Your task to perform on an android device: install app "Google Sheets" Image 0: 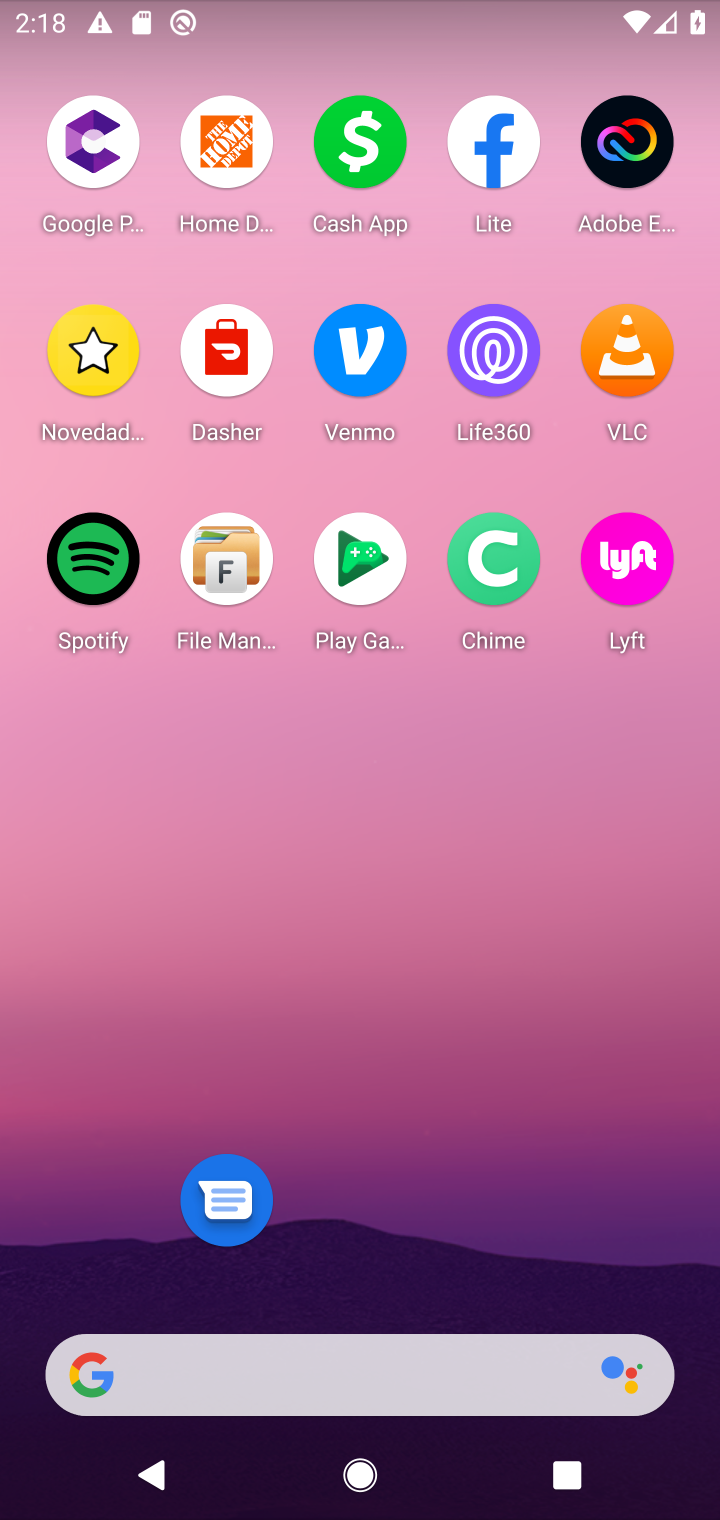
Step 0: drag from (520, 1068) to (490, 35)
Your task to perform on an android device: install app "Google Sheets" Image 1: 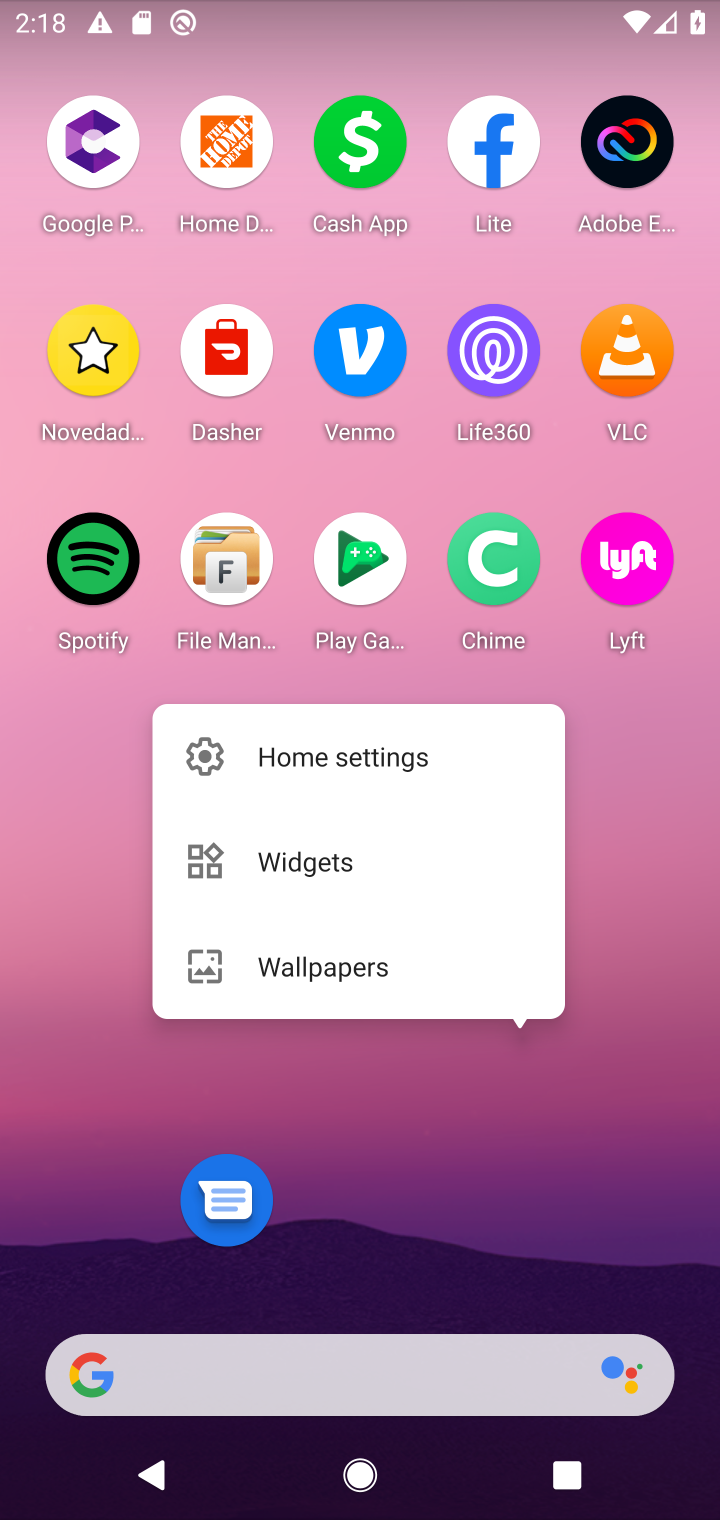
Step 1: click (655, 917)
Your task to perform on an android device: install app "Google Sheets" Image 2: 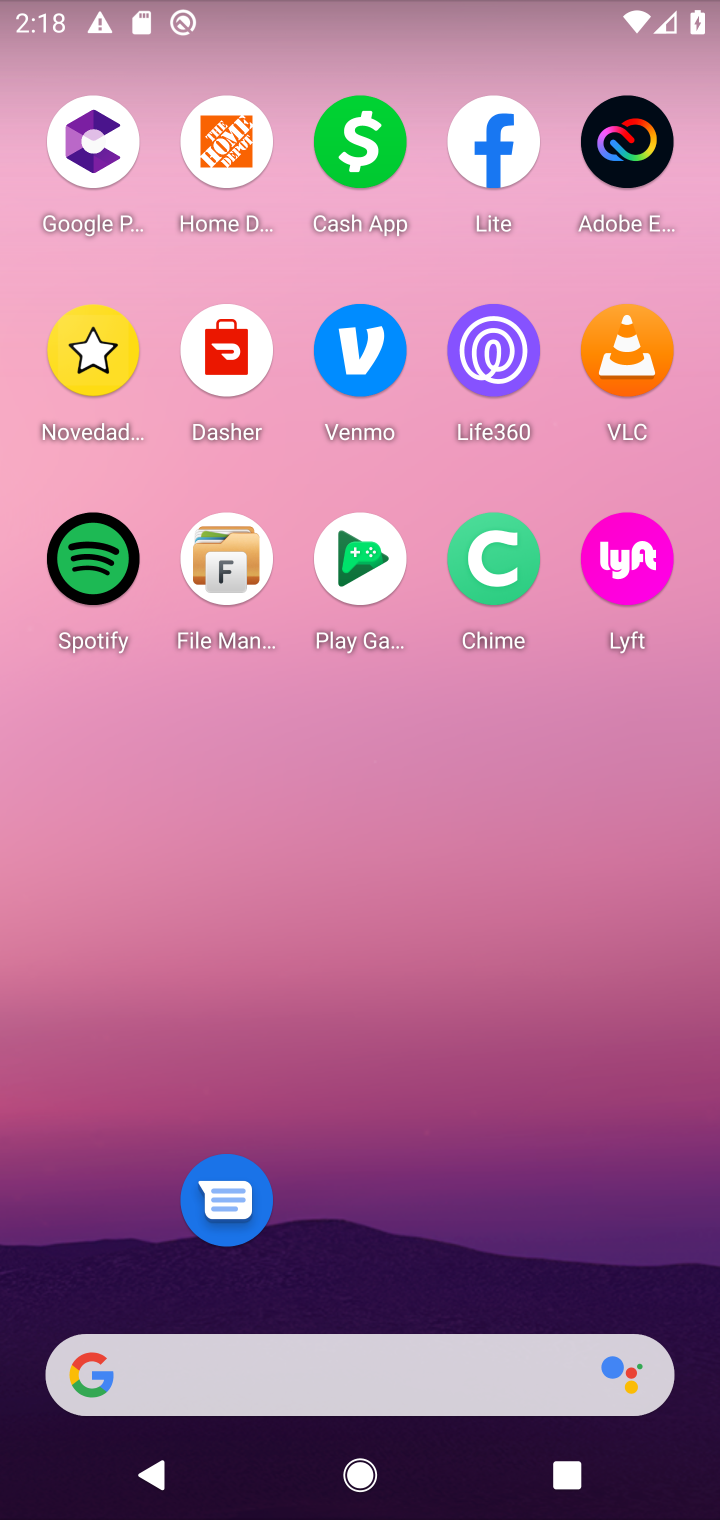
Step 2: drag from (502, 1215) to (398, 185)
Your task to perform on an android device: install app "Google Sheets" Image 3: 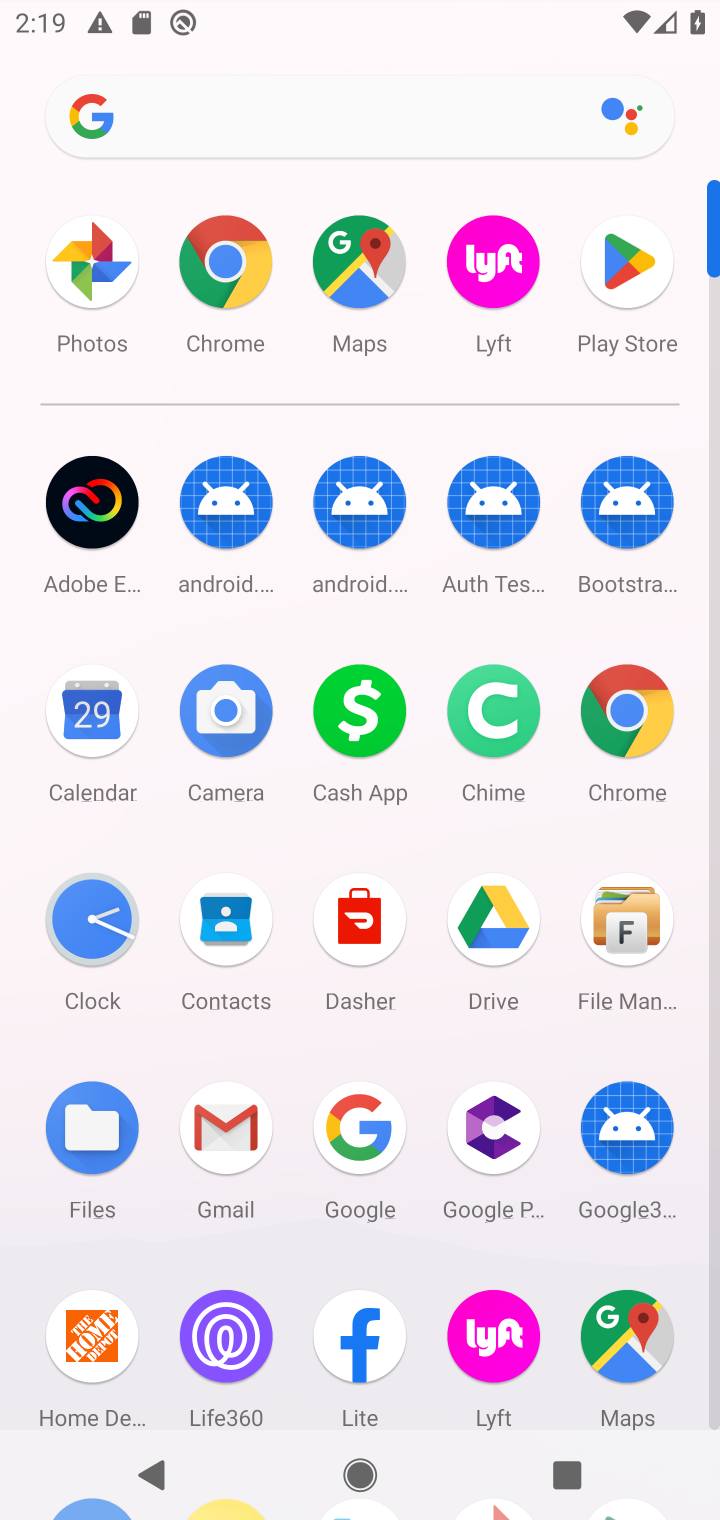
Step 3: click (652, 264)
Your task to perform on an android device: install app "Google Sheets" Image 4: 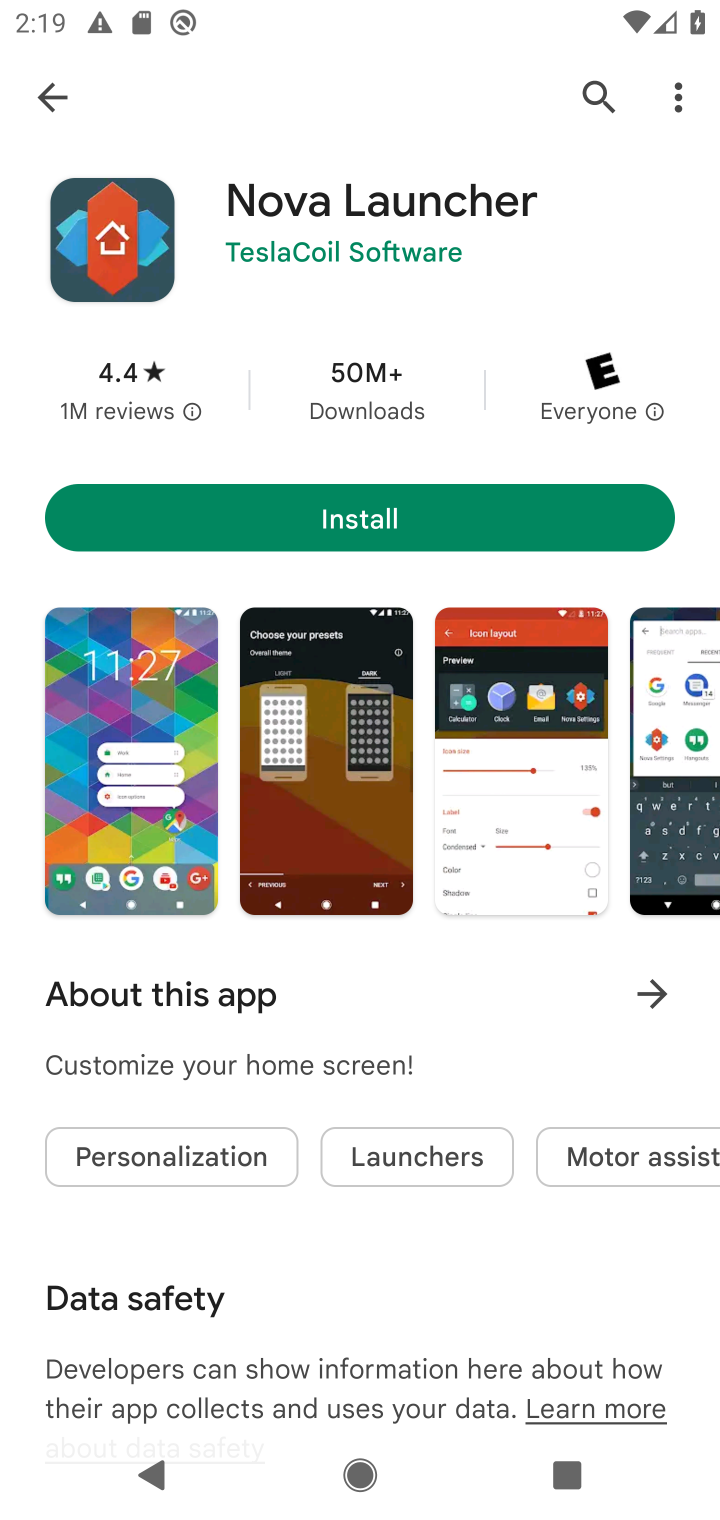
Step 4: click (603, 97)
Your task to perform on an android device: install app "Google Sheets" Image 5: 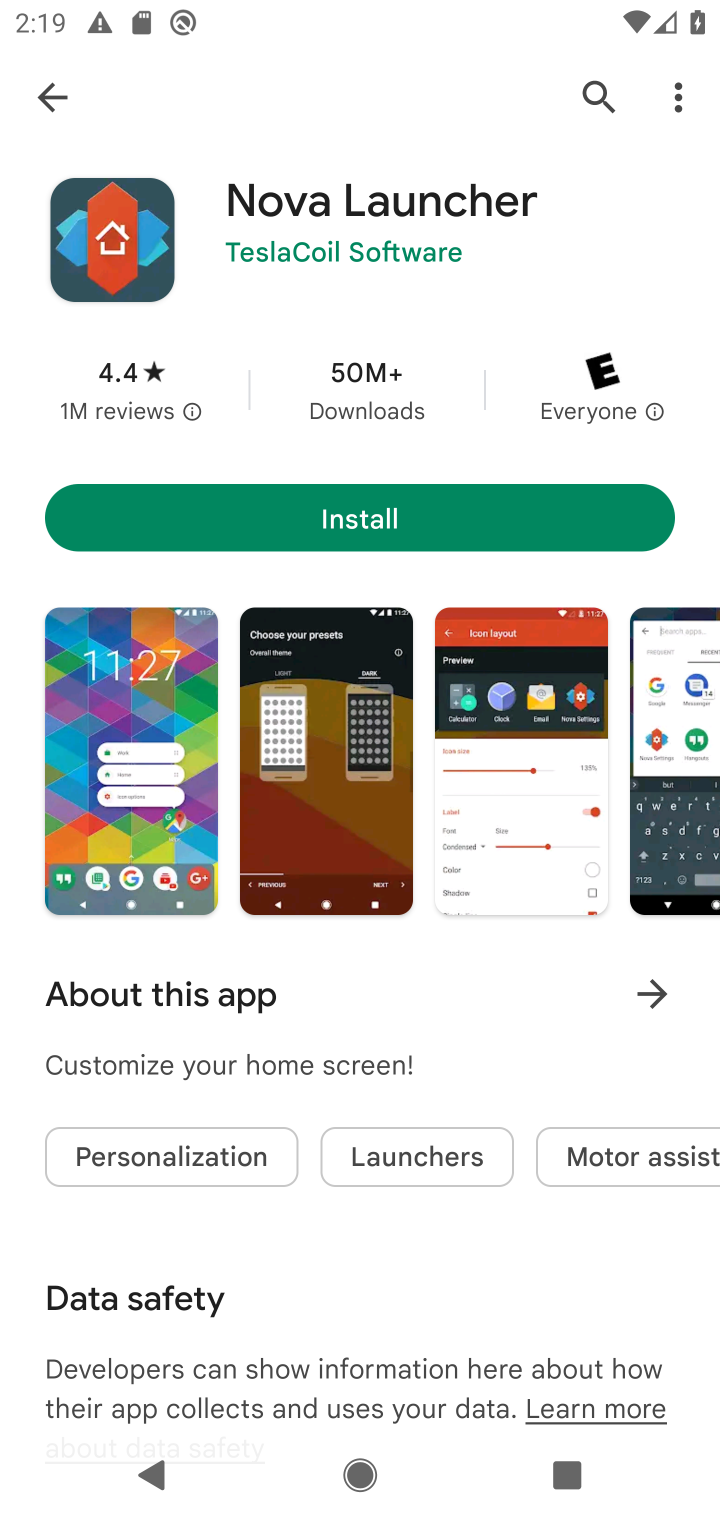
Step 5: press back button
Your task to perform on an android device: install app "Google Sheets" Image 6: 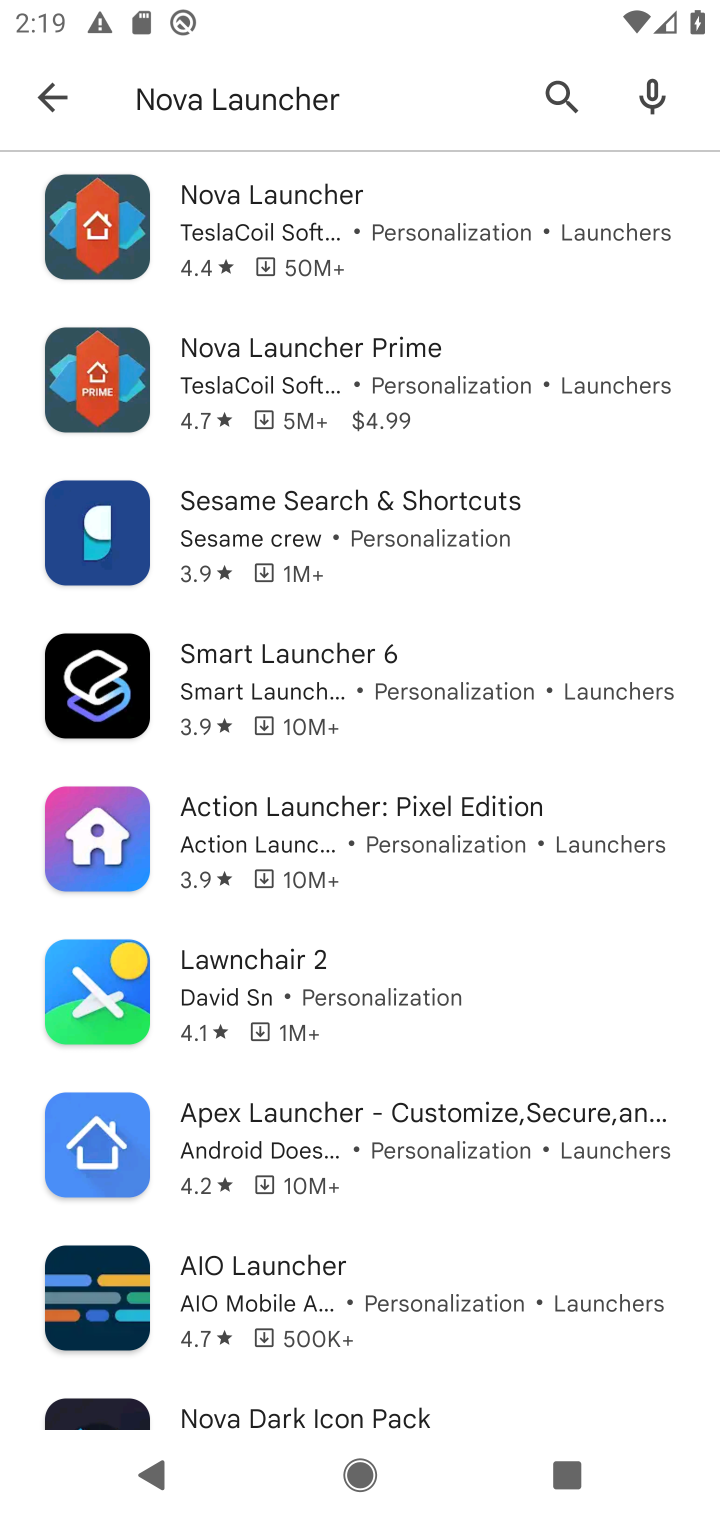
Step 6: click (357, 96)
Your task to perform on an android device: install app "Google Sheets" Image 7: 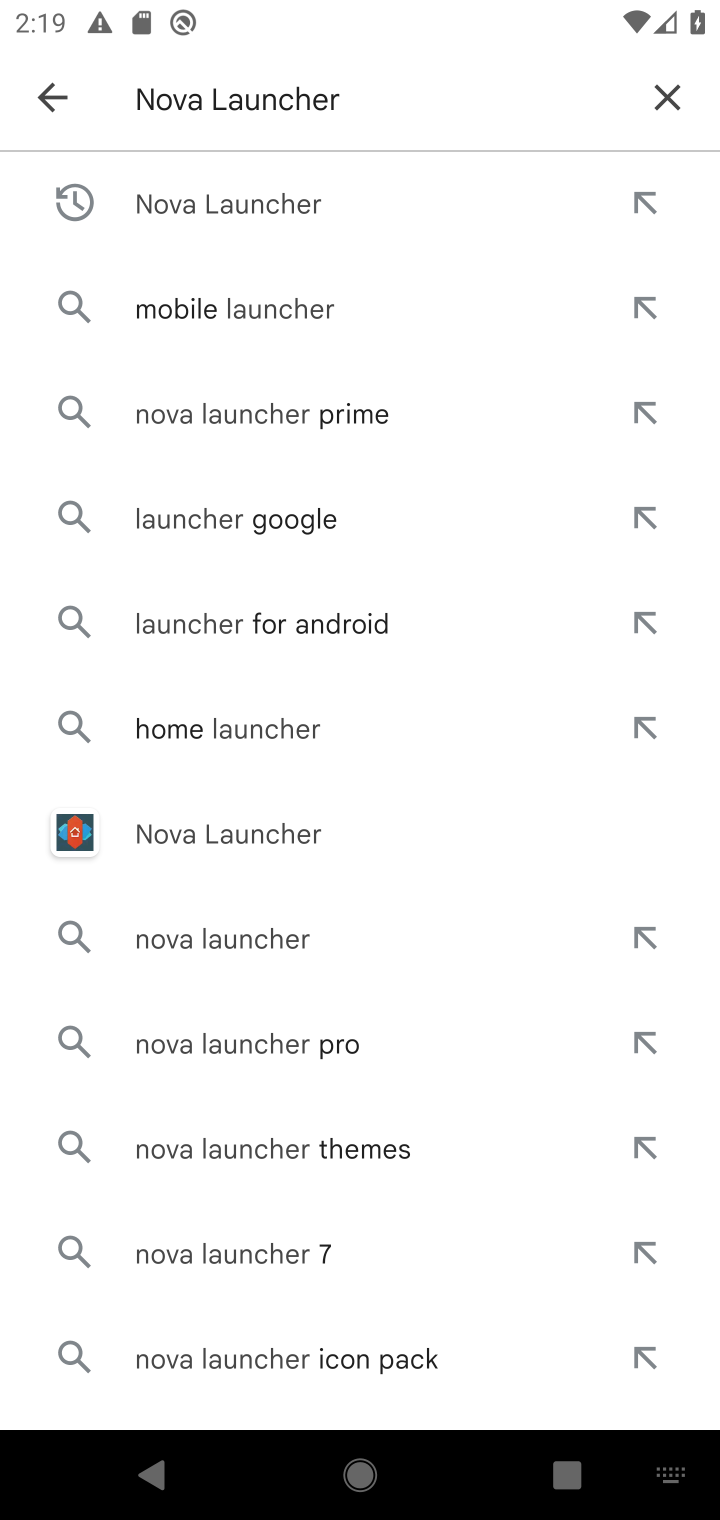
Step 7: click (675, 101)
Your task to perform on an android device: install app "Google Sheets" Image 8: 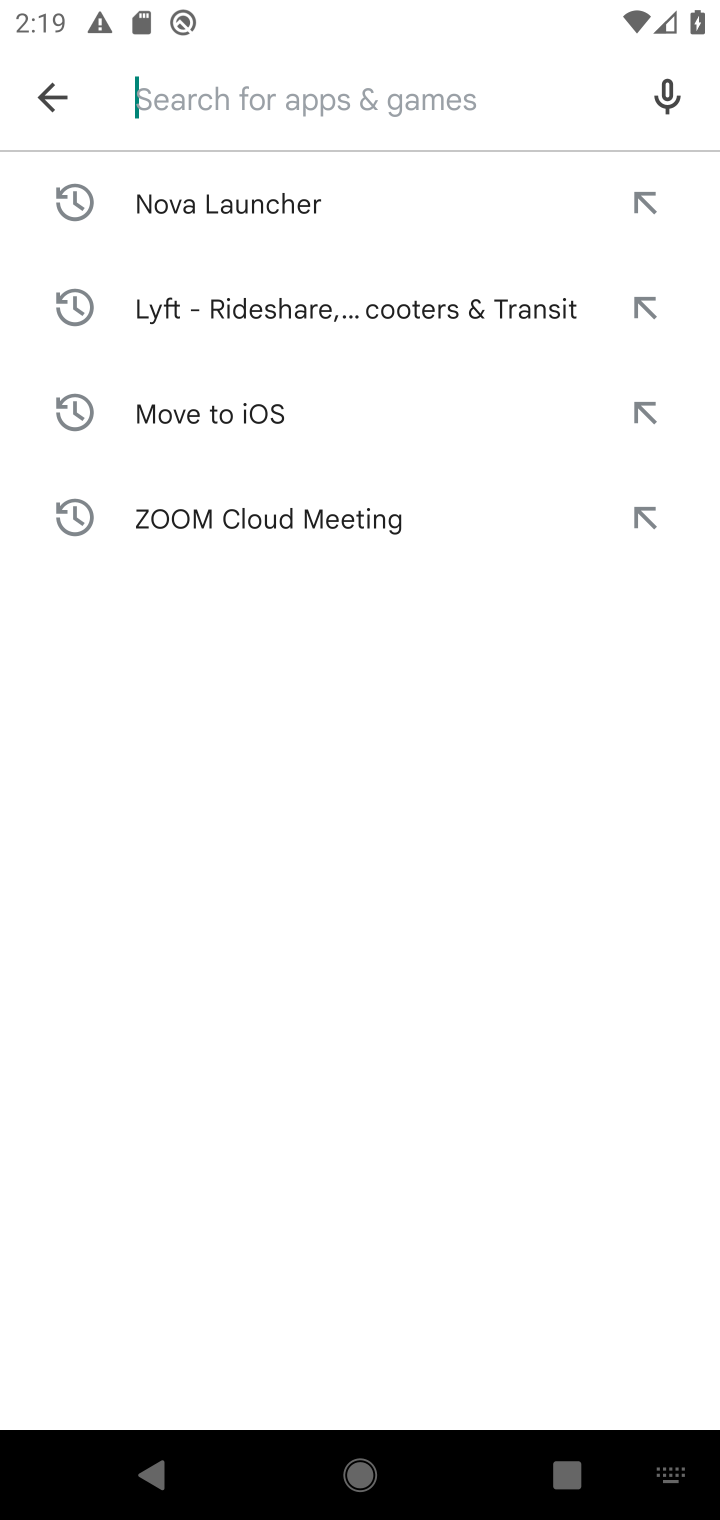
Step 8: type "Google Sheets"
Your task to perform on an android device: install app "Google Sheets" Image 9: 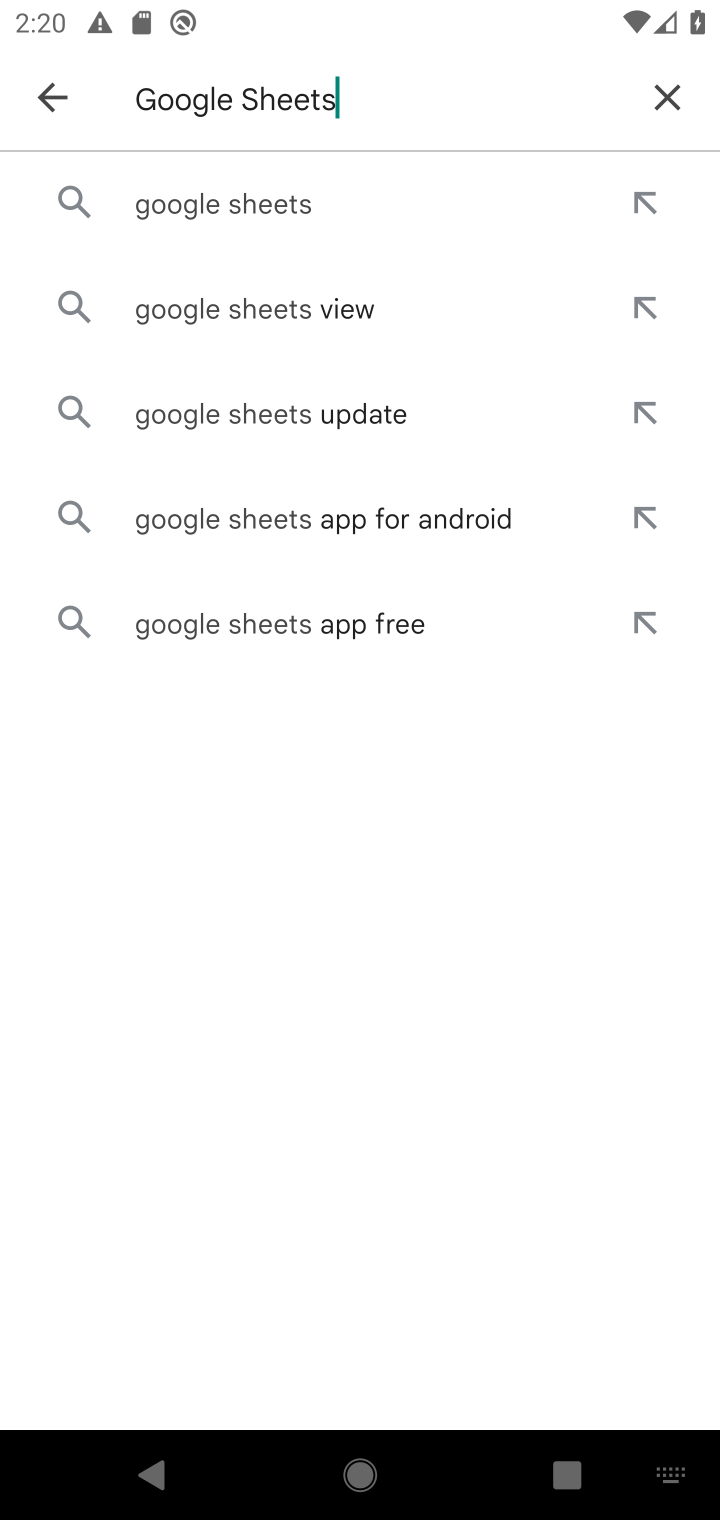
Step 9: press enter
Your task to perform on an android device: install app "Google Sheets" Image 10: 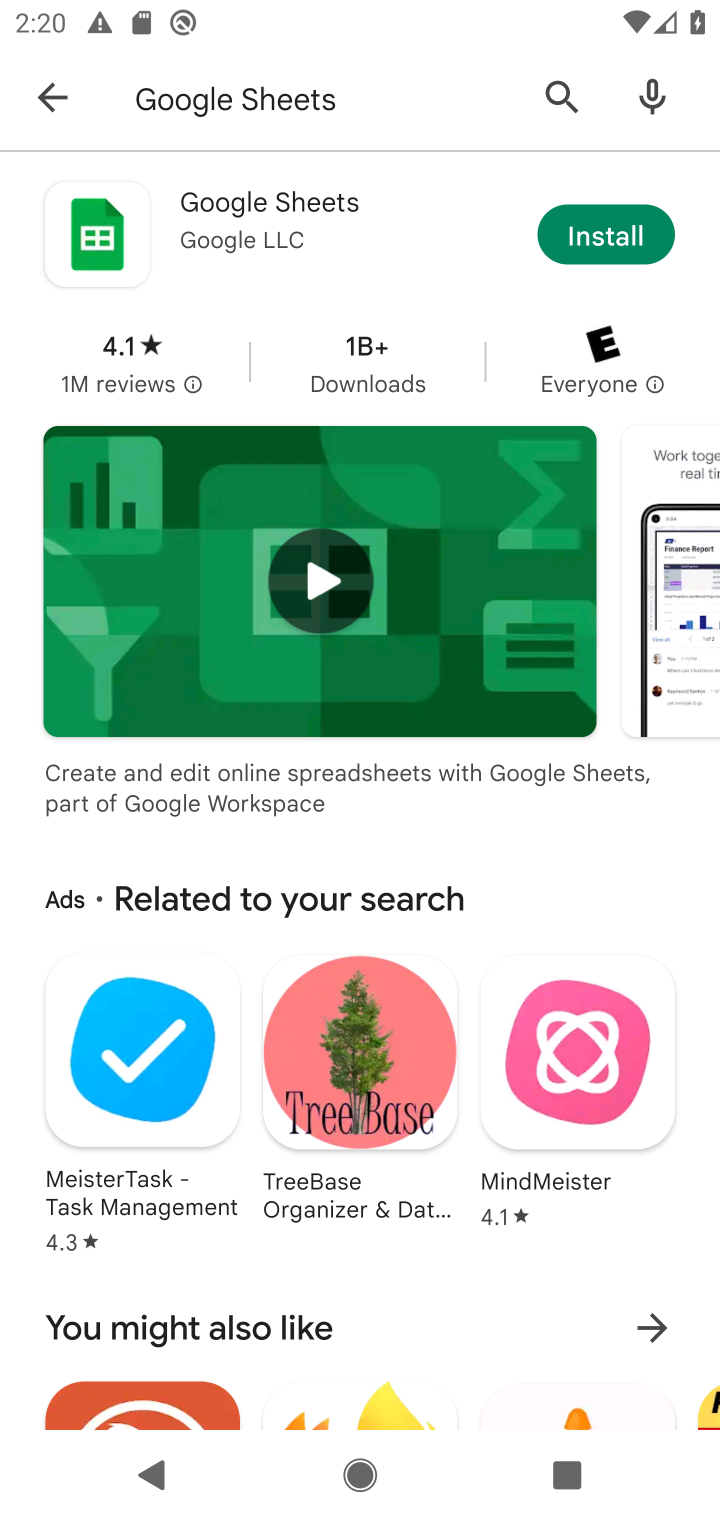
Step 10: click (643, 223)
Your task to perform on an android device: install app "Google Sheets" Image 11: 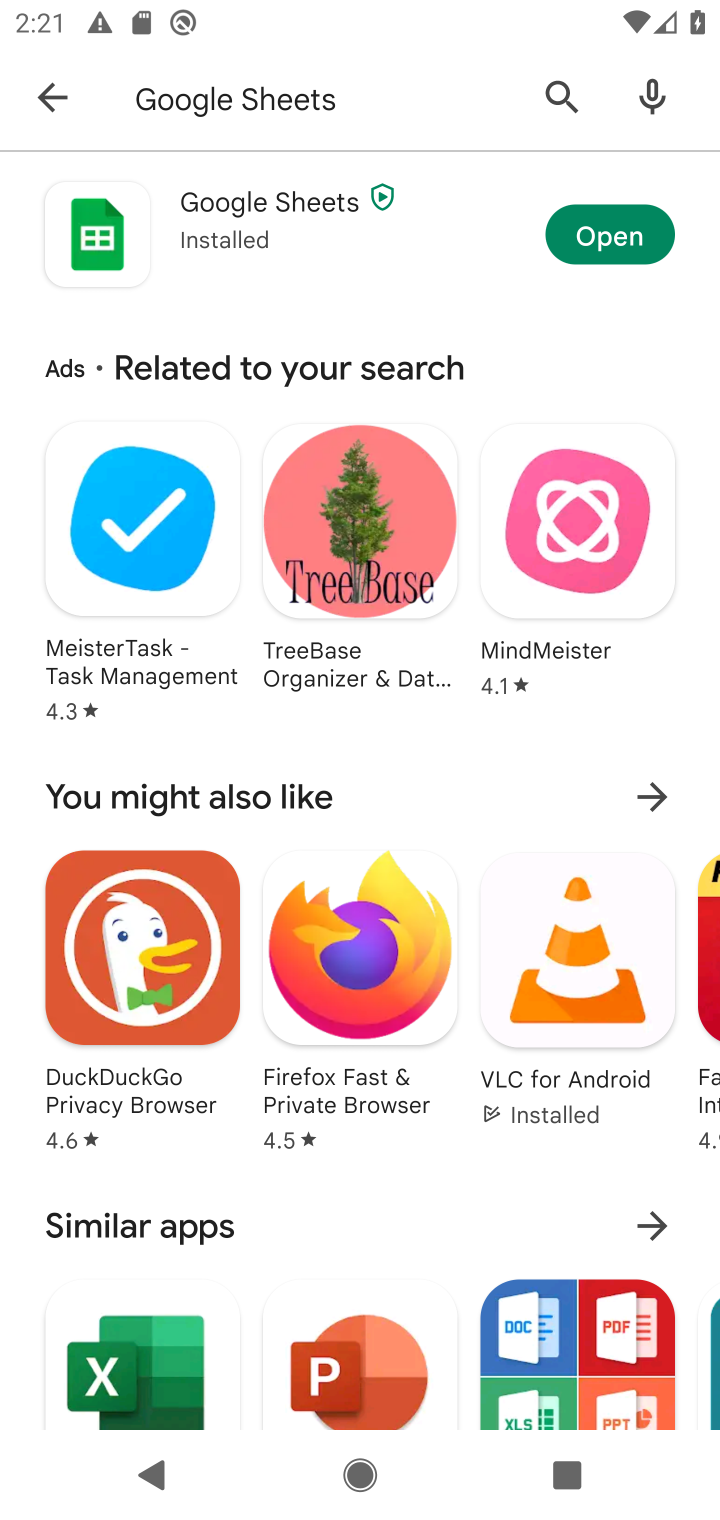
Step 11: task complete